Your task to perform on an android device: find snoozed emails in the gmail app Image 0: 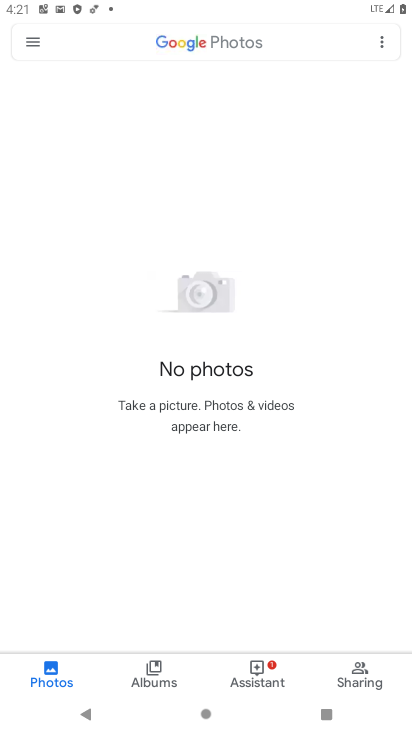
Step 0: press home button
Your task to perform on an android device: find snoozed emails in the gmail app Image 1: 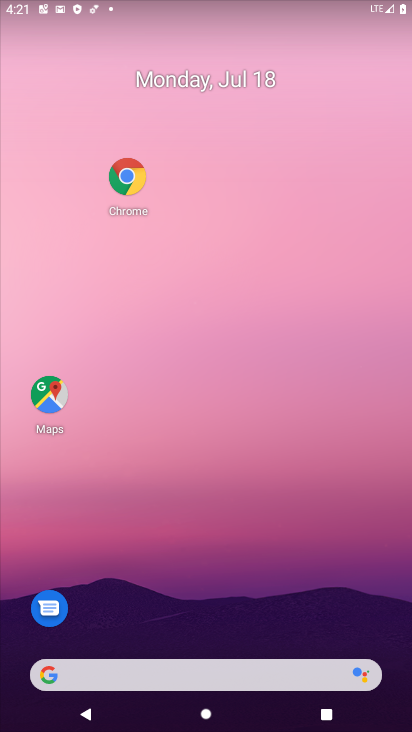
Step 1: drag from (238, 677) to (238, 249)
Your task to perform on an android device: find snoozed emails in the gmail app Image 2: 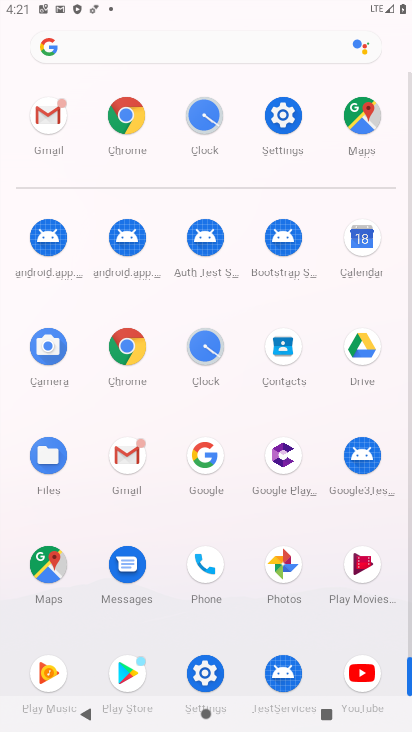
Step 2: click (133, 475)
Your task to perform on an android device: find snoozed emails in the gmail app Image 3: 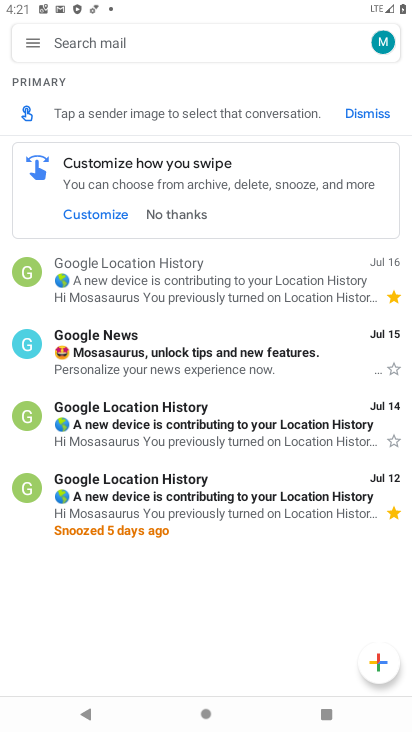
Step 3: click (31, 41)
Your task to perform on an android device: find snoozed emails in the gmail app Image 4: 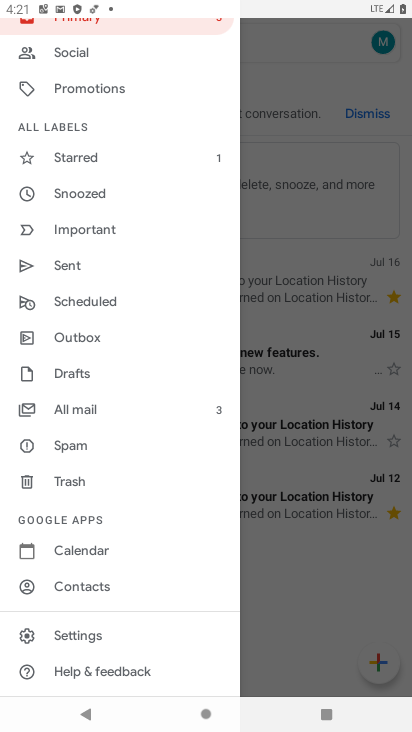
Step 4: click (92, 193)
Your task to perform on an android device: find snoozed emails in the gmail app Image 5: 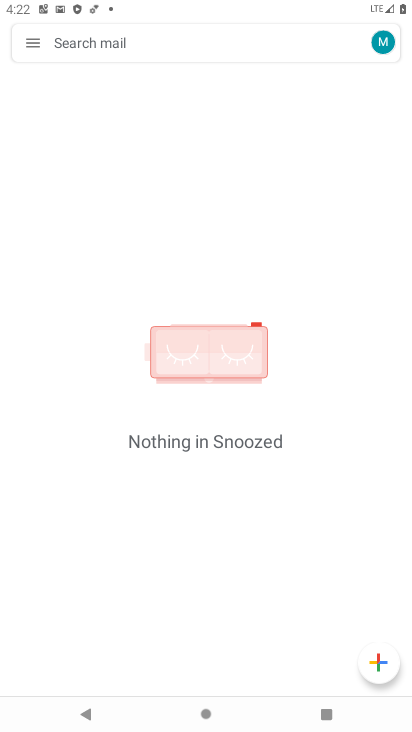
Step 5: press home button
Your task to perform on an android device: find snoozed emails in the gmail app Image 6: 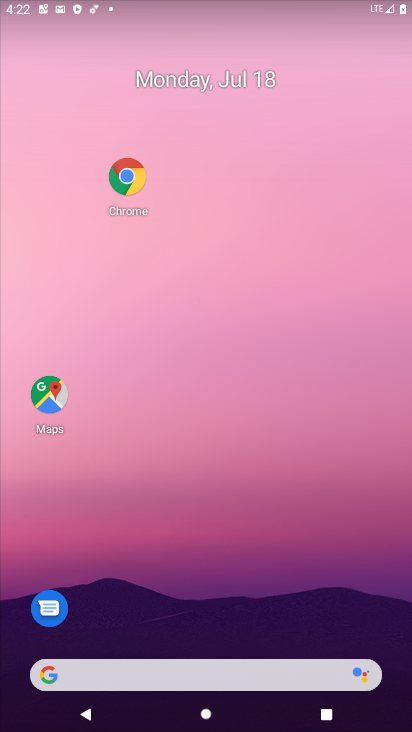
Step 6: drag from (207, 505) to (268, 122)
Your task to perform on an android device: find snoozed emails in the gmail app Image 7: 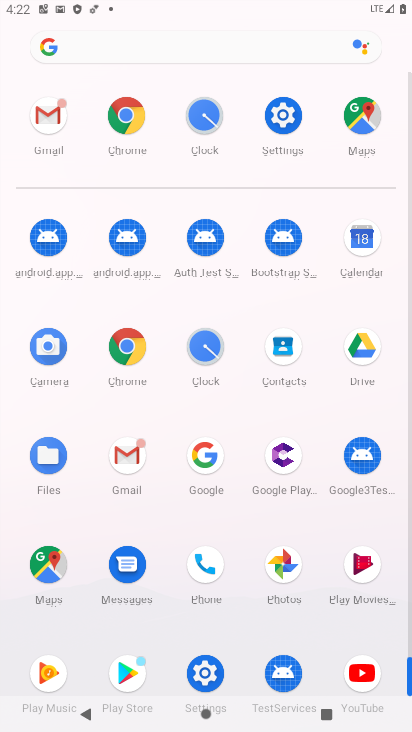
Step 7: click (133, 469)
Your task to perform on an android device: find snoozed emails in the gmail app Image 8: 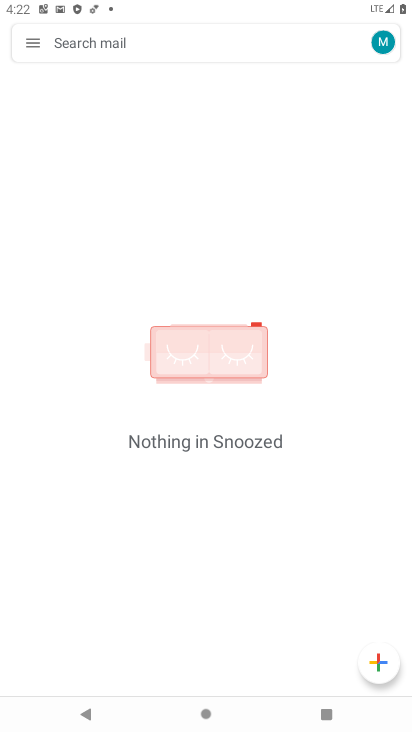
Step 8: task complete